Your task to perform on an android device: Open CNN.com Image 0: 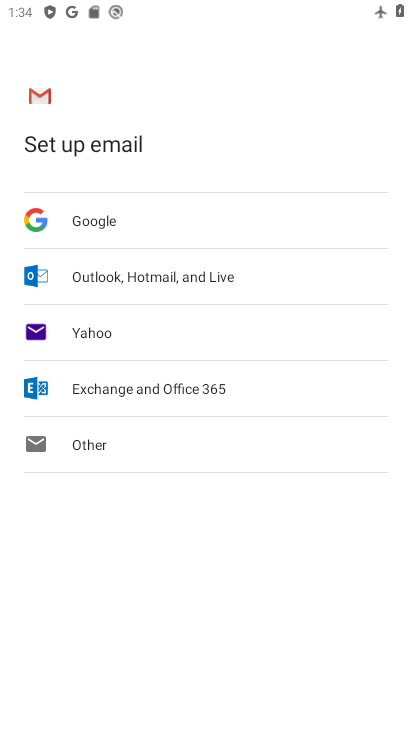
Step 0: press home button
Your task to perform on an android device: Open CNN.com Image 1: 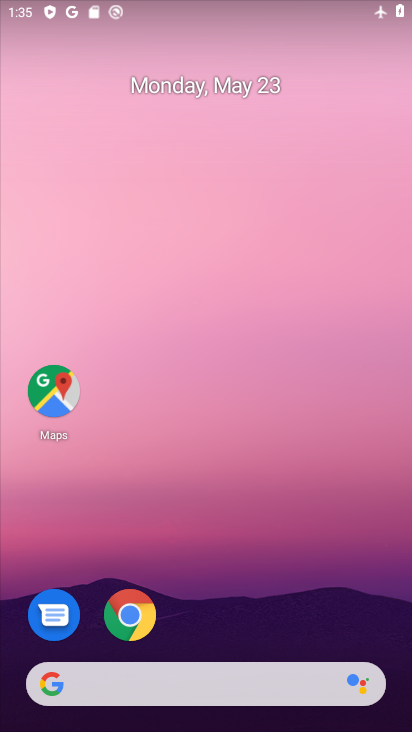
Step 1: click (152, 618)
Your task to perform on an android device: Open CNN.com Image 2: 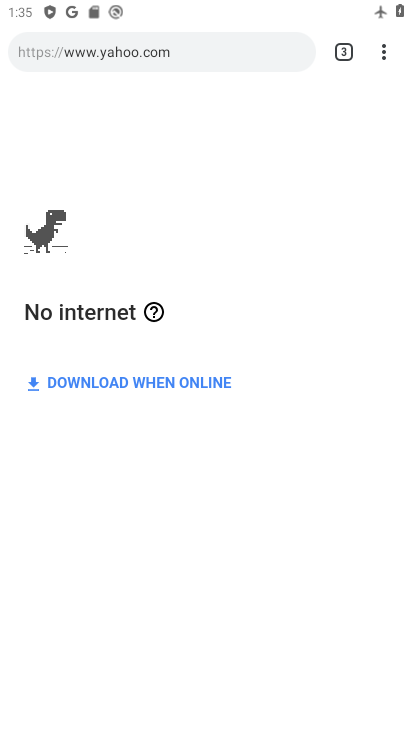
Step 2: click (345, 51)
Your task to perform on an android device: Open CNN.com Image 3: 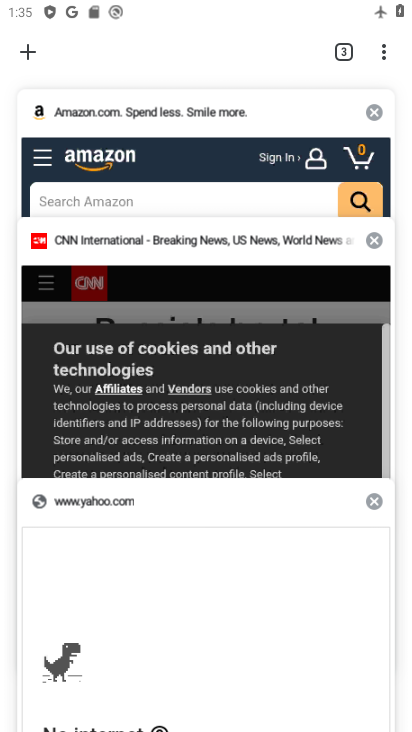
Step 3: click (83, 275)
Your task to perform on an android device: Open CNN.com Image 4: 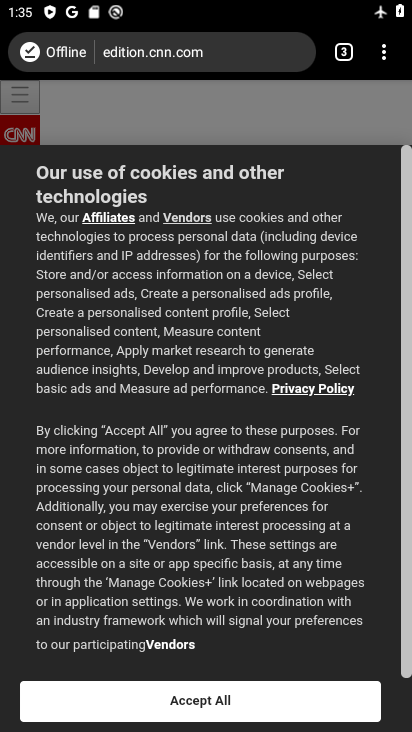
Step 4: task complete